Your task to perform on an android device: delete location history Image 0: 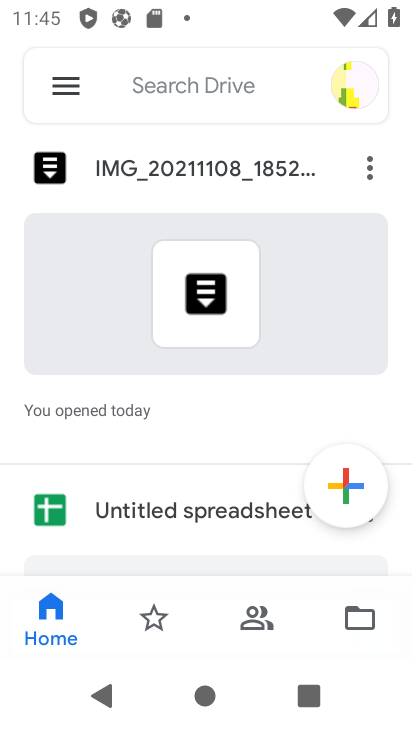
Step 0: press home button
Your task to perform on an android device: delete location history Image 1: 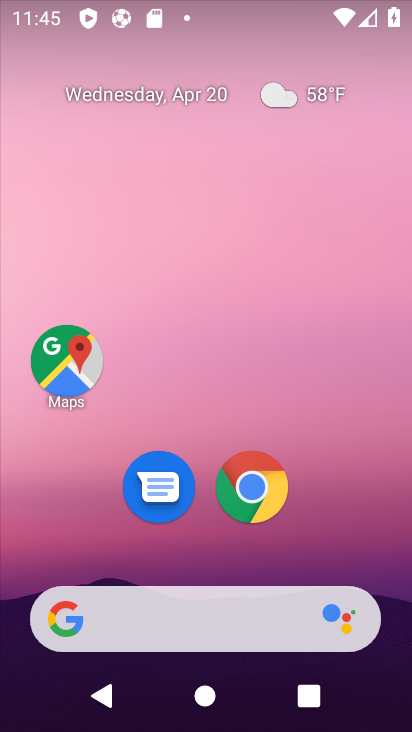
Step 1: click (64, 366)
Your task to perform on an android device: delete location history Image 2: 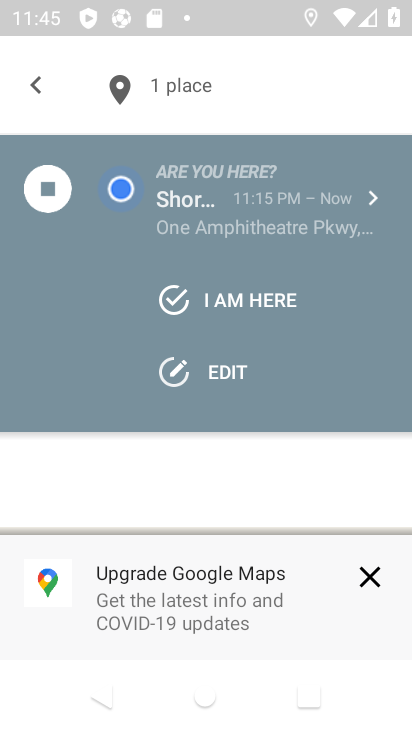
Step 2: click (37, 93)
Your task to perform on an android device: delete location history Image 3: 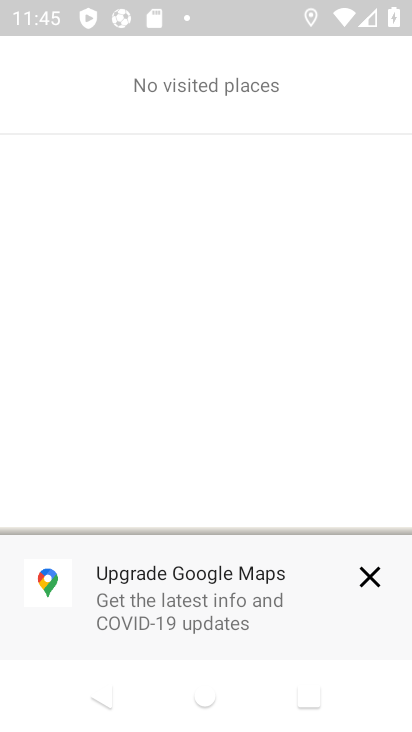
Step 3: click (368, 584)
Your task to perform on an android device: delete location history Image 4: 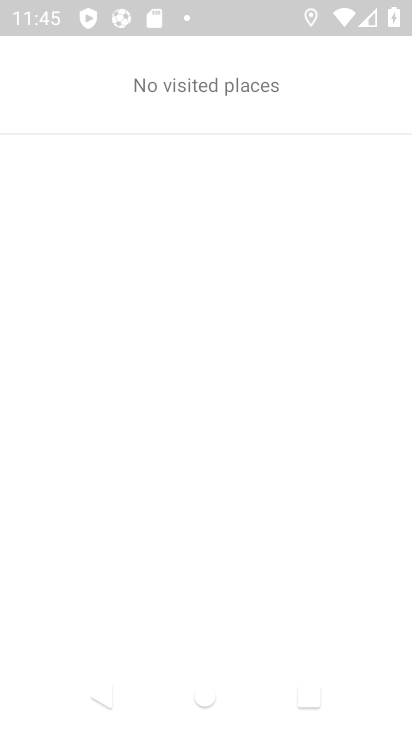
Step 4: press back button
Your task to perform on an android device: delete location history Image 5: 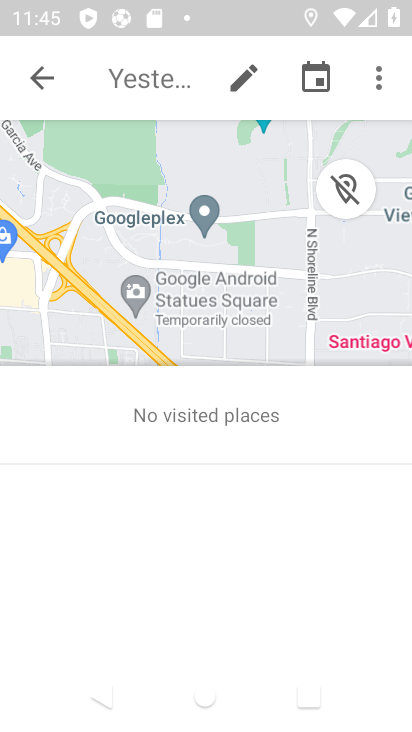
Step 5: click (40, 87)
Your task to perform on an android device: delete location history Image 6: 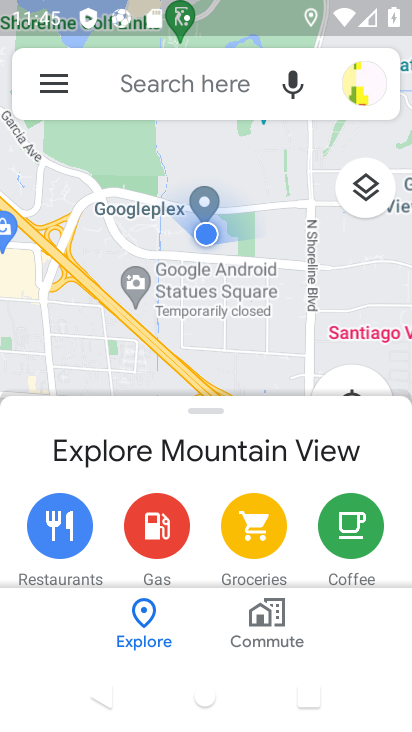
Step 6: click (48, 90)
Your task to perform on an android device: delete location history Image 7: 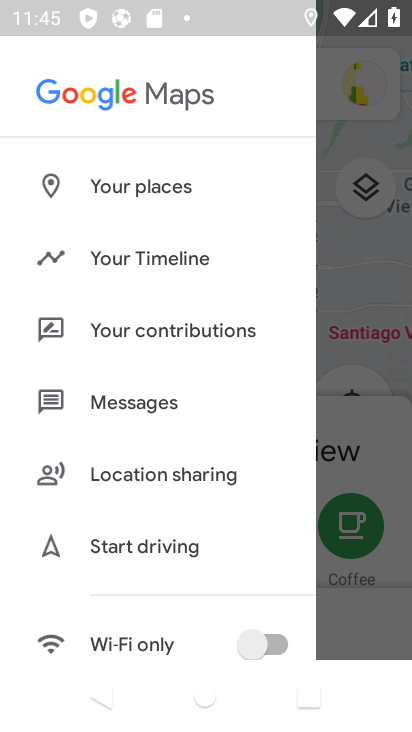
Step 7: click (139, 263)
Your task to perform on an android device: delete location history Image 8: 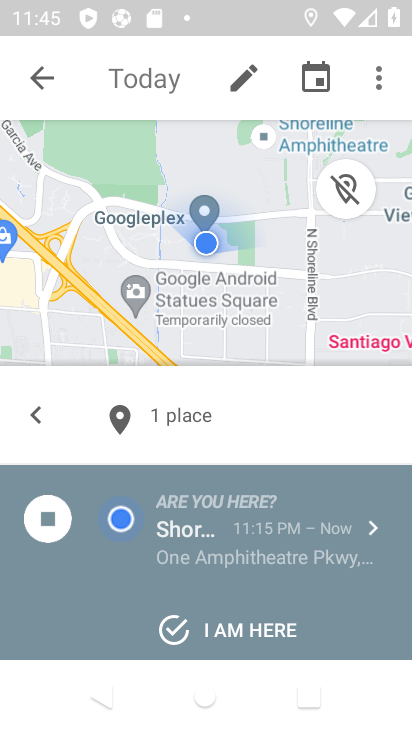
Step 8: click (380, 76)
Your task to perform on an android device: delete location history Image 9: 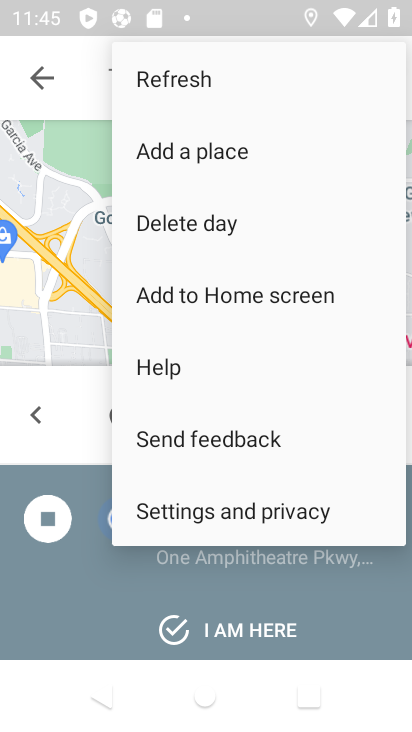
Step 9: click (189, 513)
Your task to perform on an android device: delete location history Image 10: 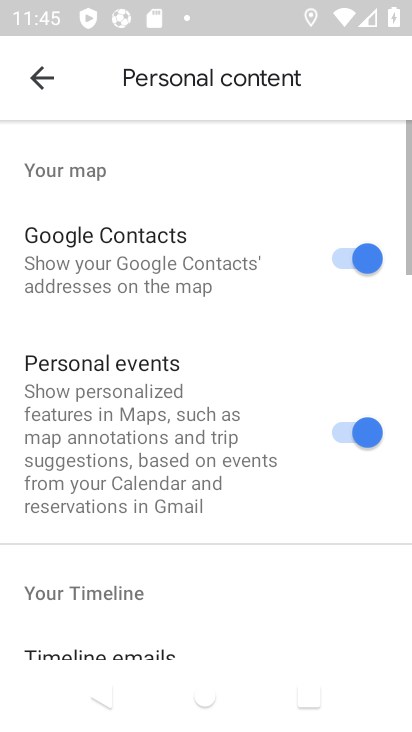
Step 10: drag from (189, 513) to (152, 98)
Your task to perform on an android device: delete location history Image 11: 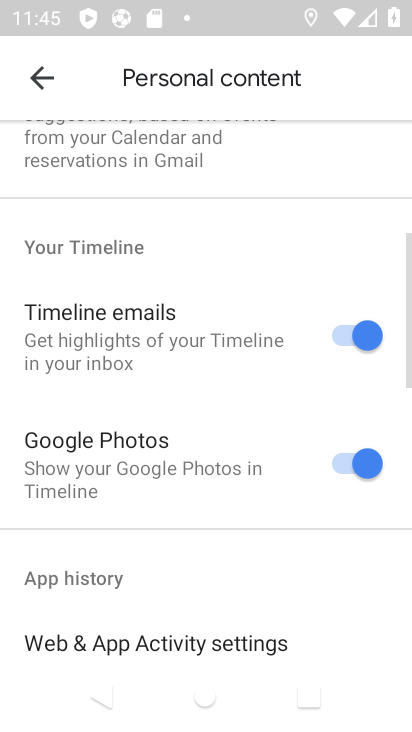
Step 11: drag from (150, 534) to (143, 107)
Your task to perform on an android device: delete location history Image 12: 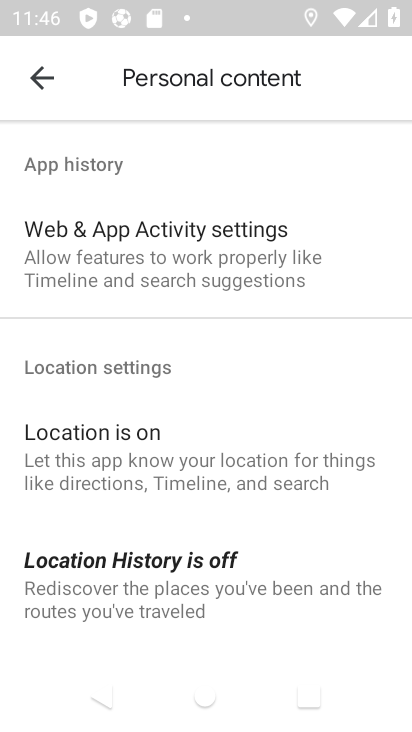
Step 12: drag from (171, 573) to (160, 305)
Your task to perform on an android device: delete location history Image 13: 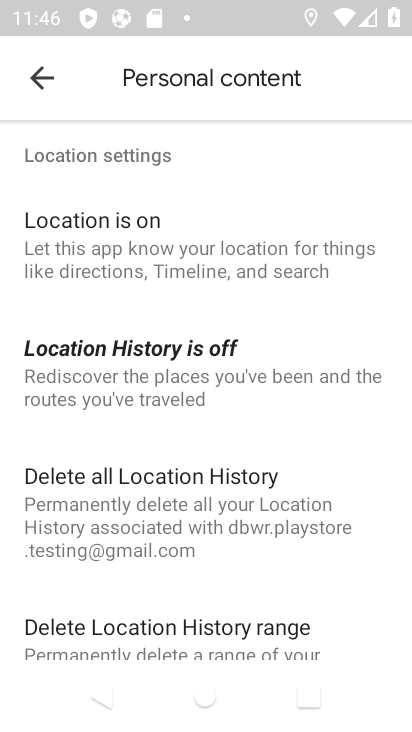
Step 13: click (140, 488)
Your task to perform on an android device: delete location history Image 14: 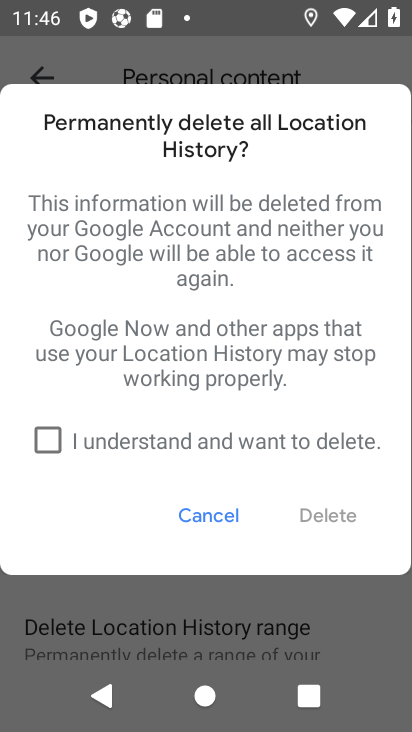
Step 14: click (56, 439)
Your task to perform on an android device: delete location history Image 15: 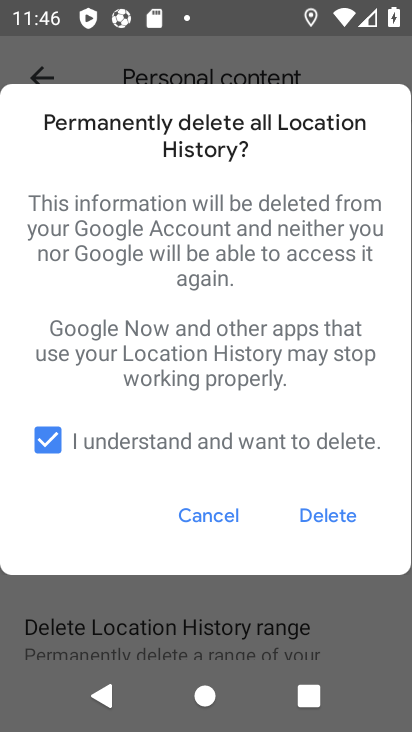
Step 15: click (316, 527)
Your task to perform on an android device: delete location history Image 16: 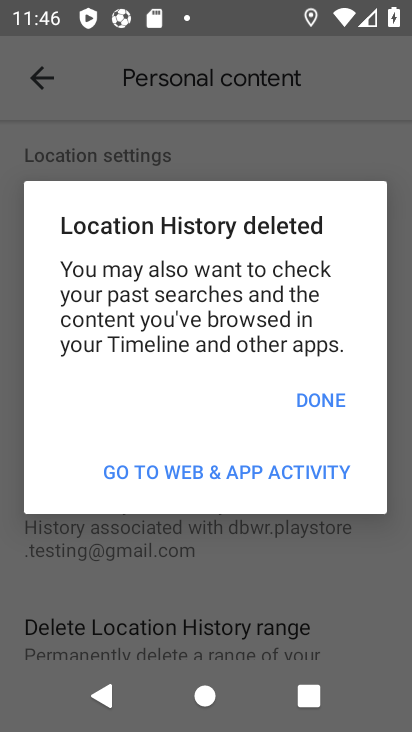
Step 16: click (305, 379)
Your task to perform on an android device: delete location history Image 17: 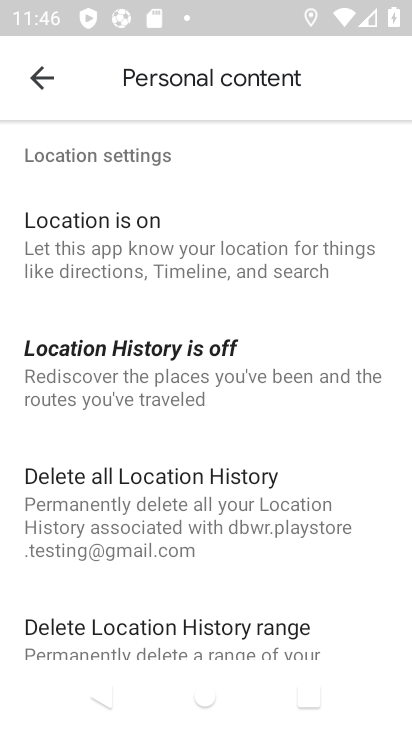
Step 17: task complete